Your task to perform on an android device: Turn off the flashlight Image 0: 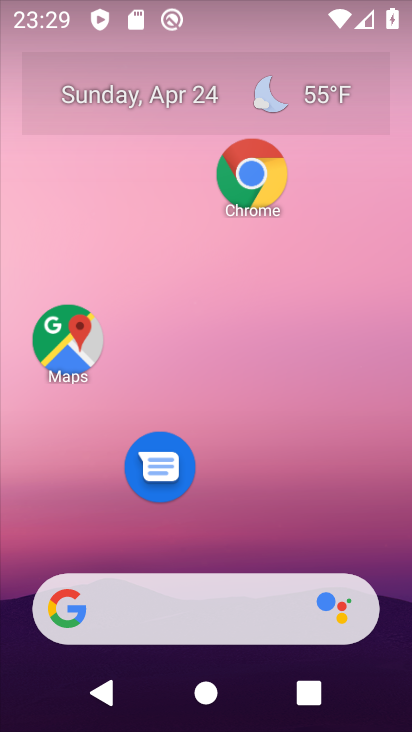
Step 0: drag from (265, 507) to (260, 5)
Your task to perform on an android device: Turn off the flashlight Image 1: 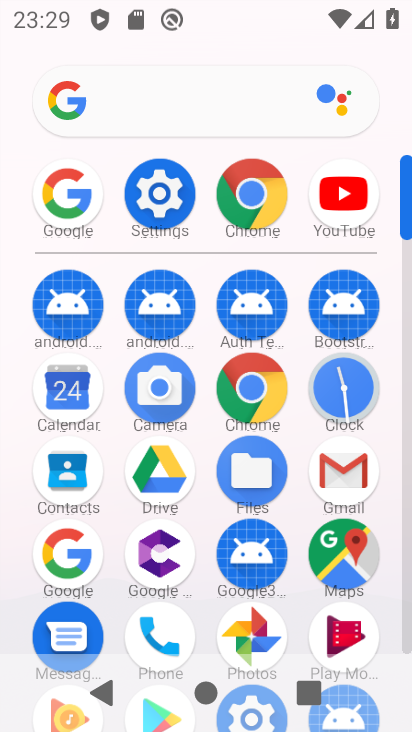
Step 1: click (157, 189)
Your task to perform on an android device: Turn off the flashlight Image 2: 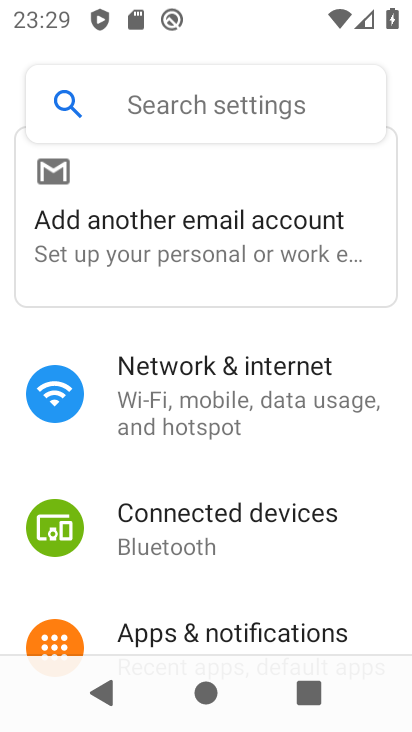
Step 2: click (205, 99)
Your task to perform on an android device: Turn off the flashlight Image 3: 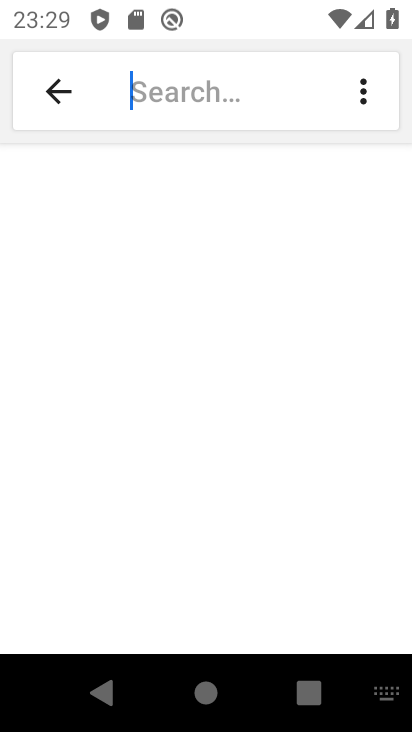
Step 3: type "flashlight"
Your task to perform on an android device: Turn off the flashlight Image 4: 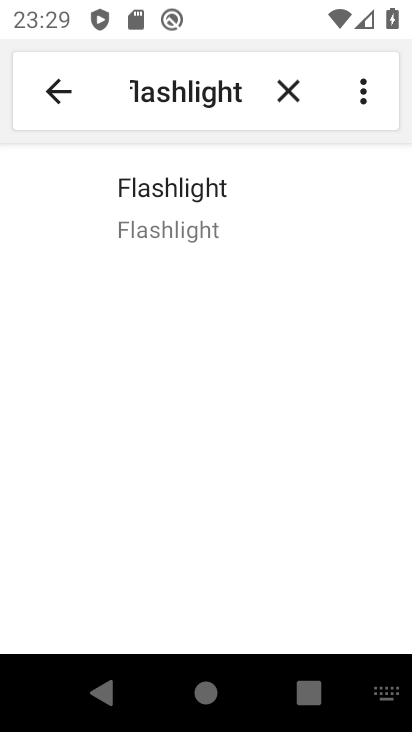
Step 4: task complete